Your task to perform on an android device: turn off javascript in the chrome app Image 0: 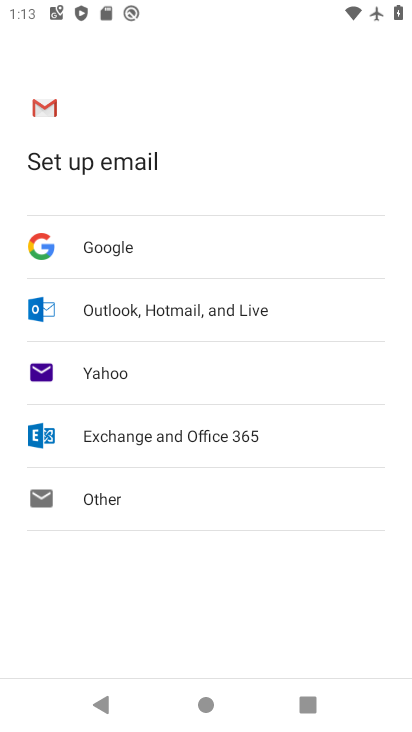
Step 0: press home button
Your task to perform on an android device: turn off javascript in the chrome app Image 1: 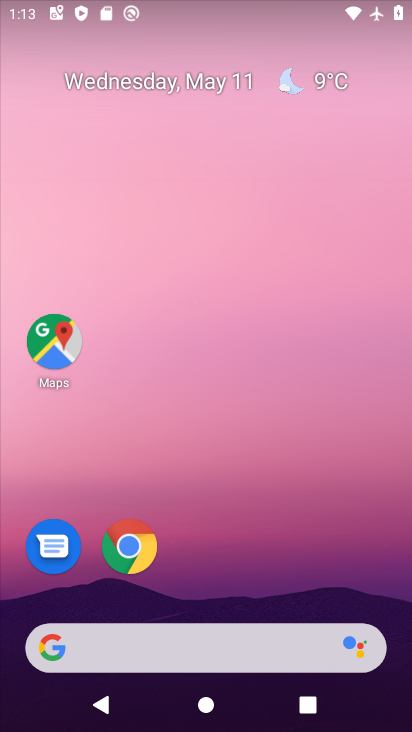
Step 1: drag from (278, 623) to (315, 58)
Your task to perform on an android device: turn off javascript in the chrome app Image 2: 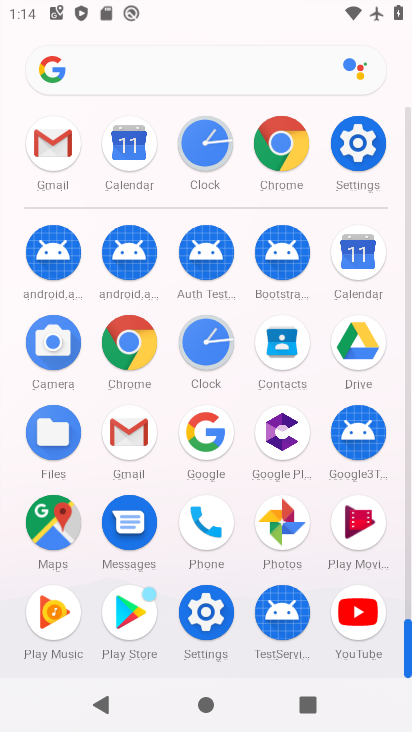
Step 2: click (130, 337)
Your task to perform on an android device: turn off javascript in the chrome app Image 3: 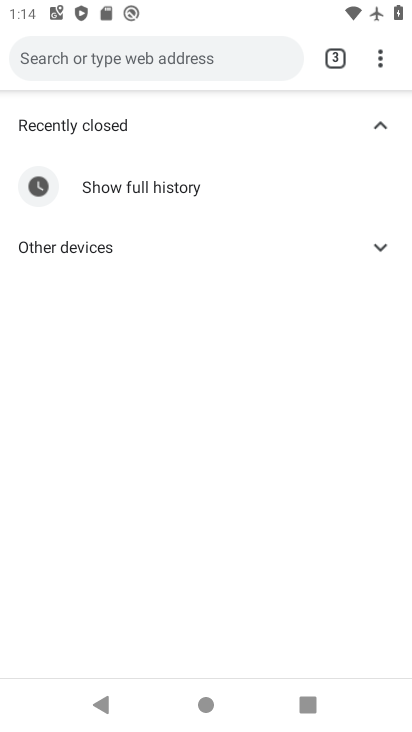
Step 3: click (373, 55)
Your task to perform on an android device: turn off javascript in the chrome app Image 4: 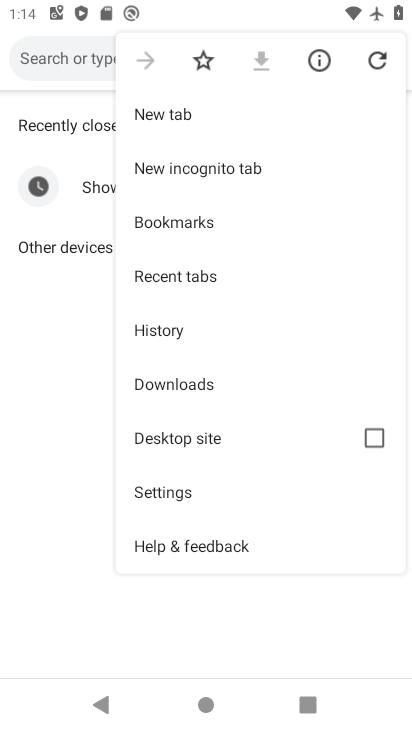
Step 4: click (220, 497)
Your task to perform on an android device: turn off javascript in the chrome app Image 5: 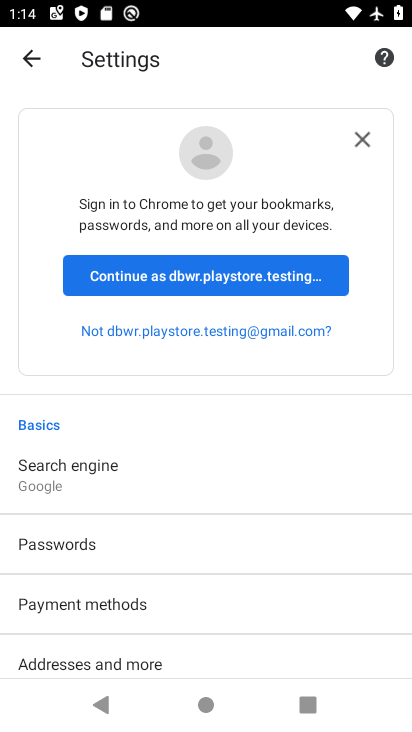
Step 5: drag from (145, 652) to (198, 177)
Your task to perform on an android device: turn off javascript in the chrome app Image 6: 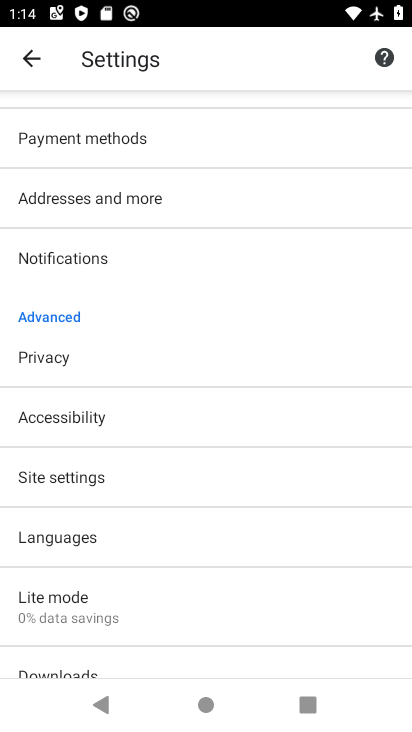
Step 6: click (116, 479)
Your task to perform on an android device: turn off javascript in the chrome app Image 7: 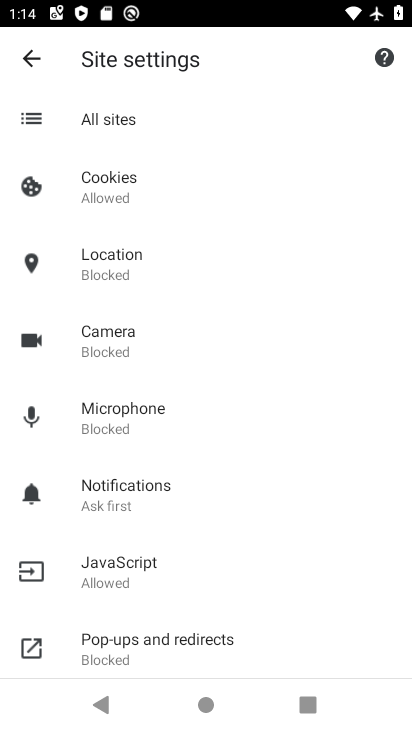
Step 7: click (114, 566)
Your task to perform on an android device: turn off javascript in the chrome app Image 8: 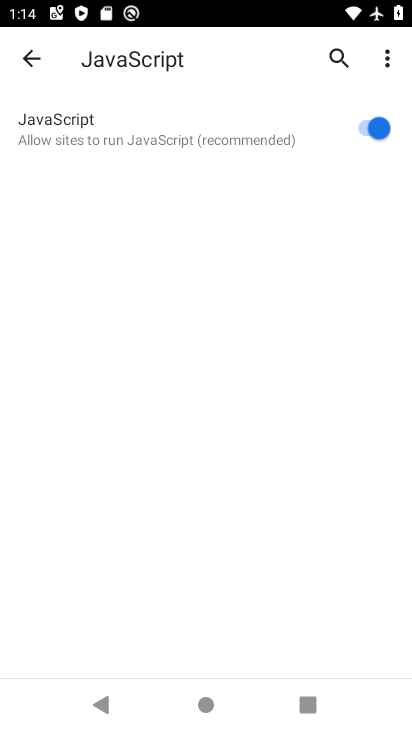
Step 8: click (372, 124)
Your task to perform on an android device: turn off javascript in the chrome app Image 9: 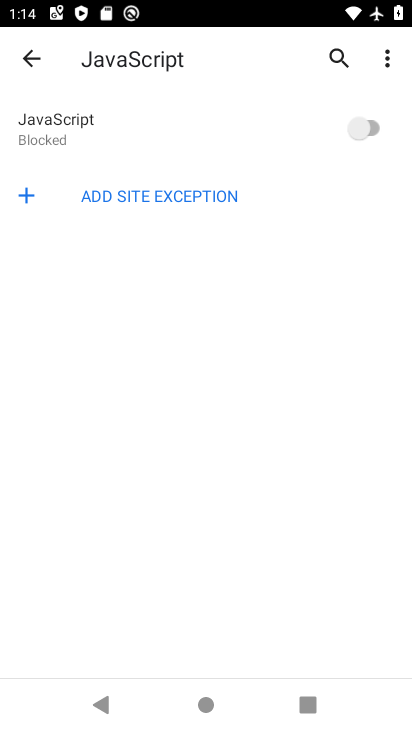
Step 9: task complete